Your task to perform on an android device: Open Android settings Image 0: 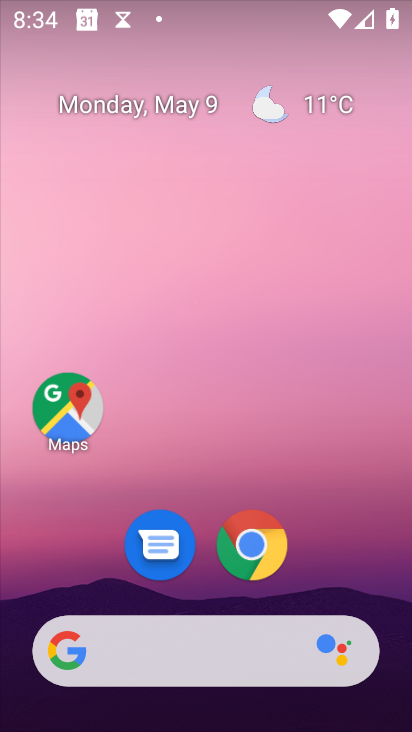
Step 0: drag from (181, 724) to (179, 152)
Your task to perform on an android device: Open Android settings Image 1: 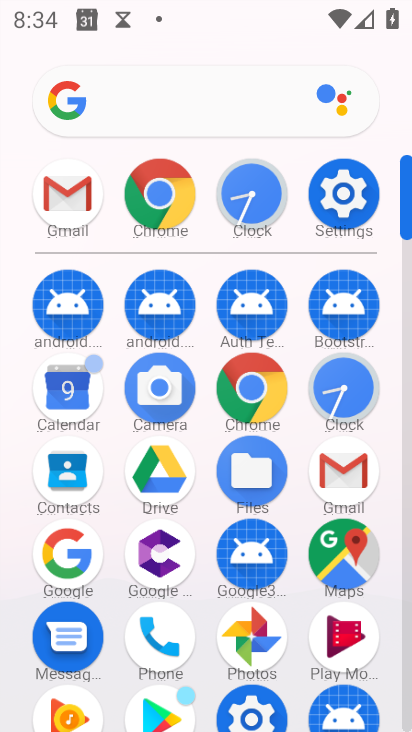
Step 1: click (331, 195)
Your task to perform on an android device: Open Android settings Image 2: 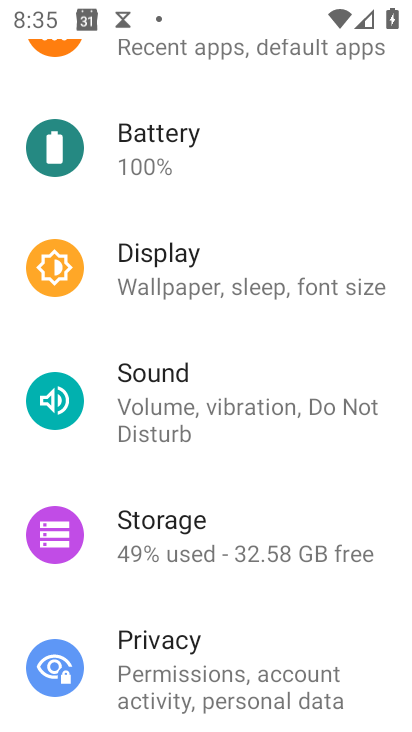
Step 2: task complete